Your task to perform on an android device: find which apps use the phone's location Image 0: 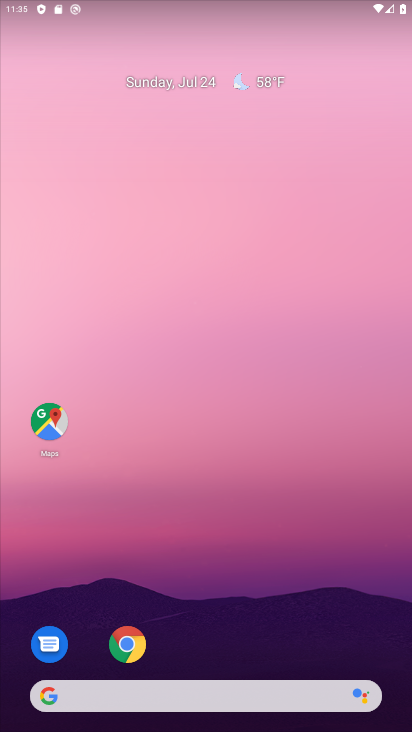
Step 0: drag from (329, 635) to (166, 0)
Your task to perform on an android device: find which apps use the phone's location Image 1: 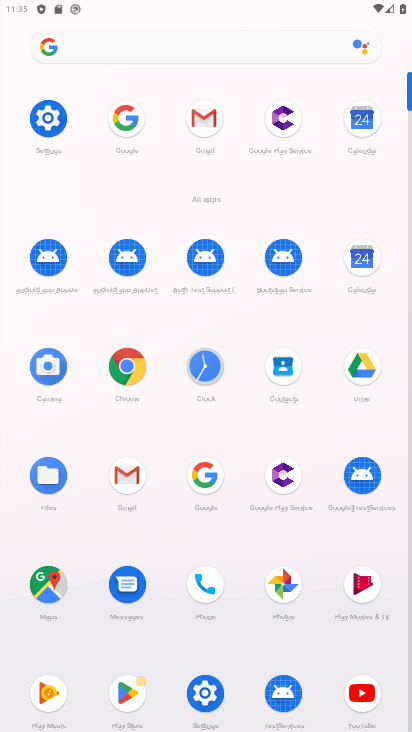
Step 1: click (40, 155)
Your task to perform on an android device: find which apps use the phone's location Image 2: 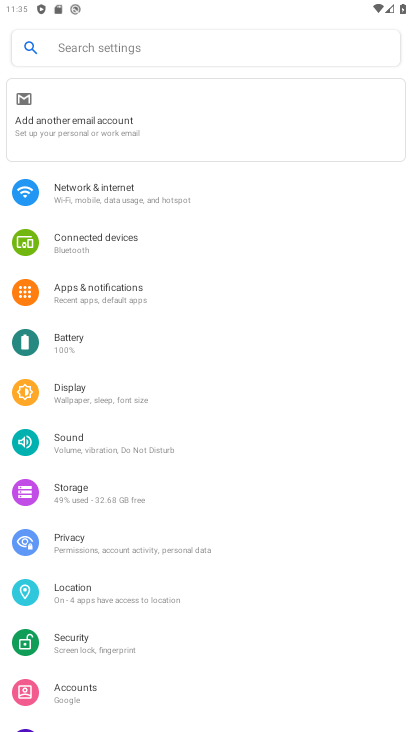
Step 2: click (82, 602)
Your task to perform on an android device: find which apps use the phone's location Image 3: 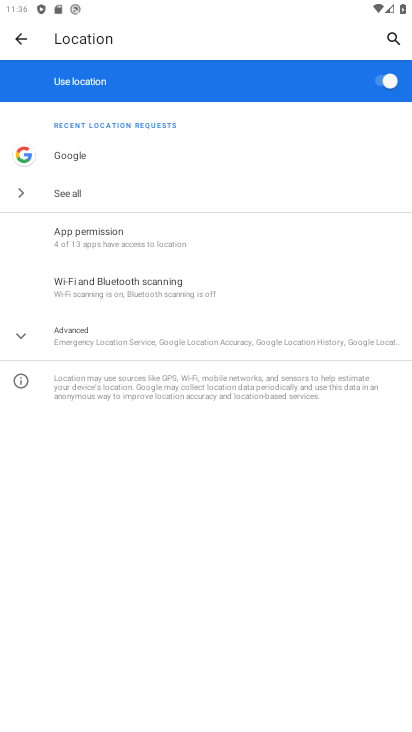
Step 3: click (165, 231)
Your task to perform on an android device: find which apps use the phone's location Image 4: 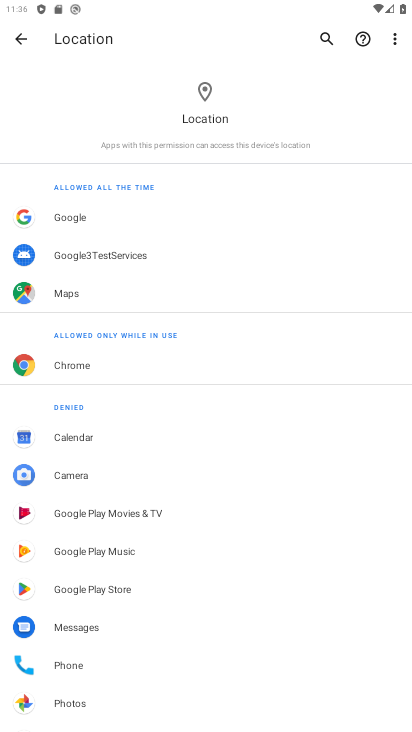
Step 4: task complete